Your task to perform on an android device: Search for acer predator on walmart, select the first entry, add it to the cart, then select checkout. Image 0: 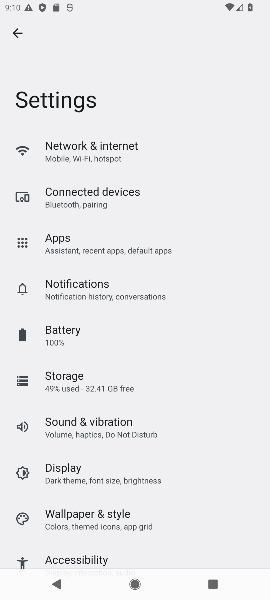
Step 0: task complete